Your task to perform on an android device: snooze an email in the gmail app Image 0: 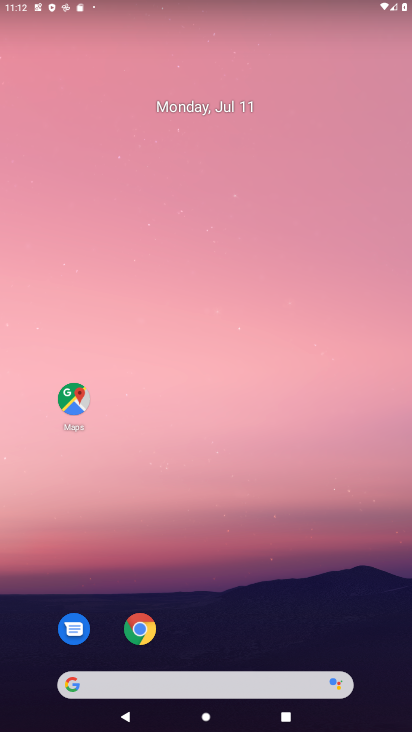
Step 0: drag from (232, 633) to (235, 96)
Your task to perform on an android device: snooze an email in the gmail app Image 1: 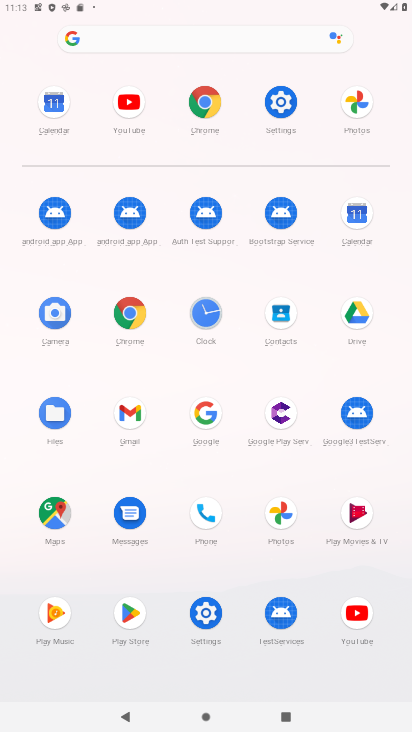
Step 1: click (131, 426)
Your task to perform on an android device: snooze an email in the gmail app Image 2: 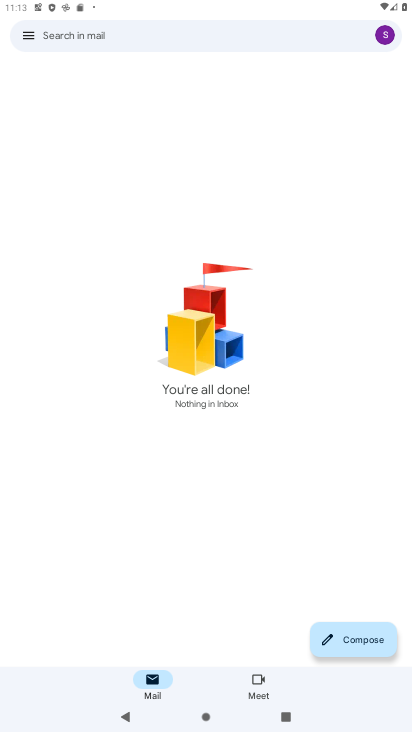
Step 2: click (384, 34)
Your task to perform on an android device: snooze an email in the gmail app Image 3: 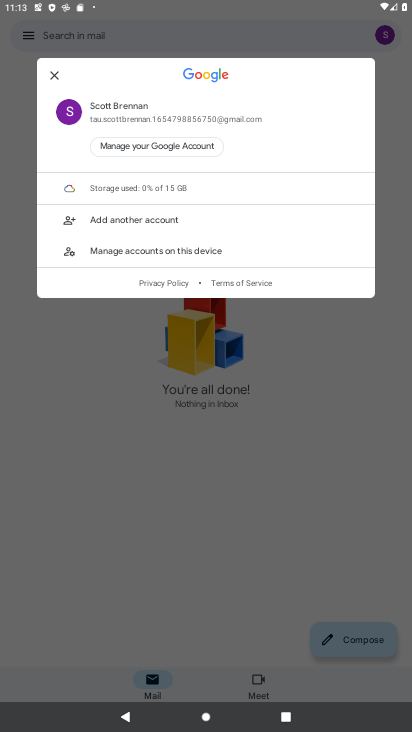
Step 3: click (127, 374)
Your task to perform on an android device: snooze an email in the gmail app Image 4: 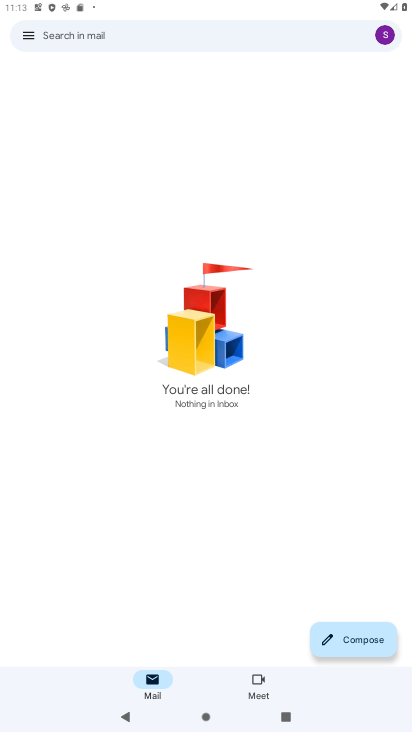
Step 4: click (31, 43)
Your task to perform on an android device: snooze an email in the gmail app Image 5: 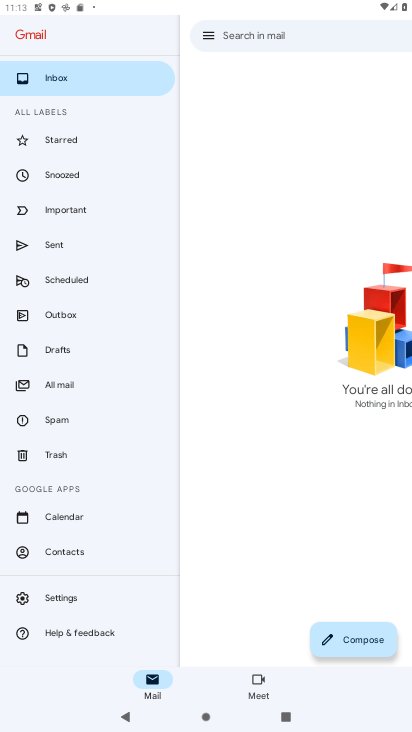
Step 5: click (56, 153)
Your task to perform on an android device: snooze an email in the gmail app Image 6: 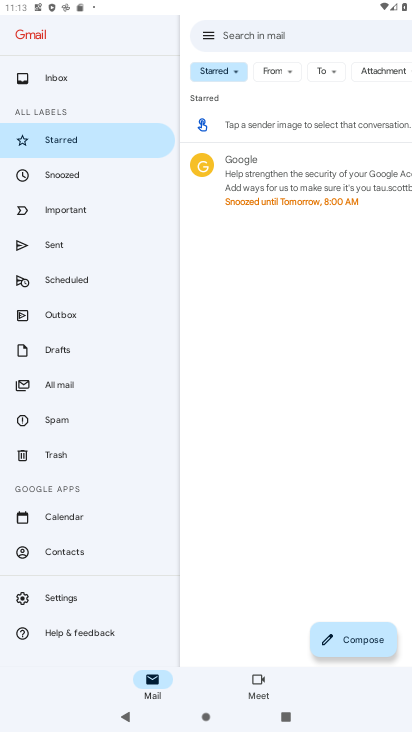
Step 6: click (74, 174)
Your task to perform on an android device: snooze an email in the gmail app Image 7: 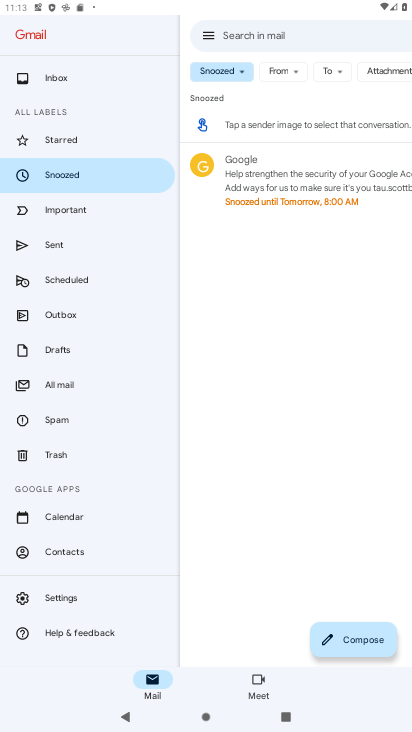
Step 7: task complete